Your task to perform on an android device: turn off location Image 0: 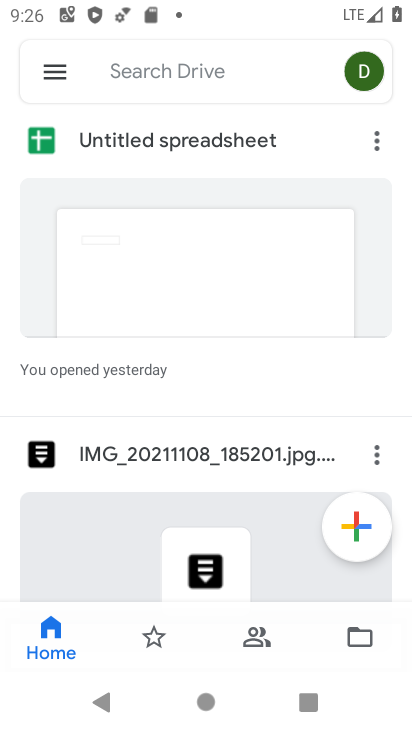
Step 0: press home button
Your task to perform on an android device: turn off location Image 1: 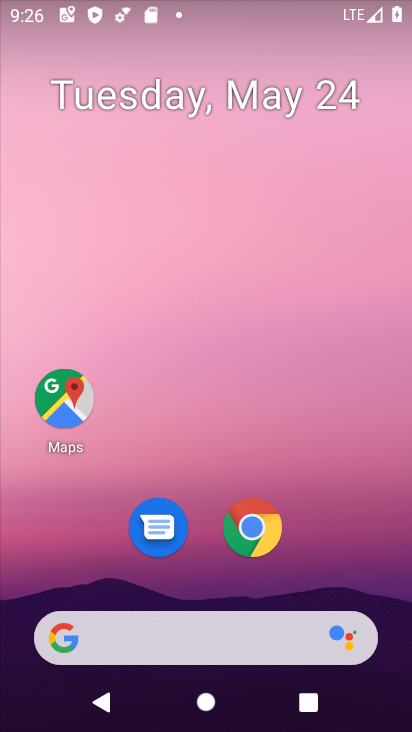
Step 1: drag from (198, 519) to (239, 82)
Your task to perform on an android device: turn off location Image 2: 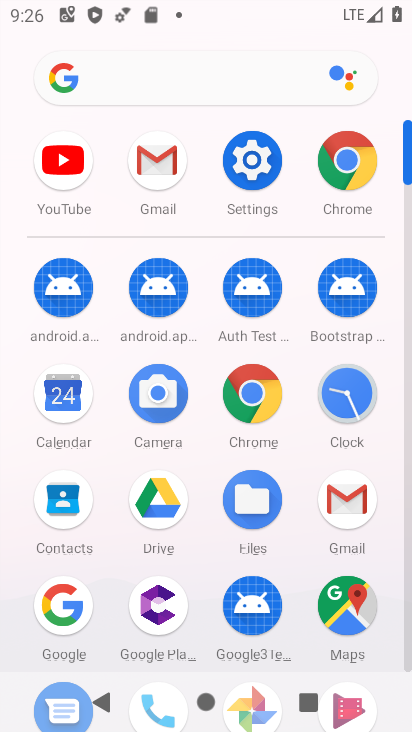
Step 2: click (245, 152)
Your task to perform on an android device: turn off location Image 3: 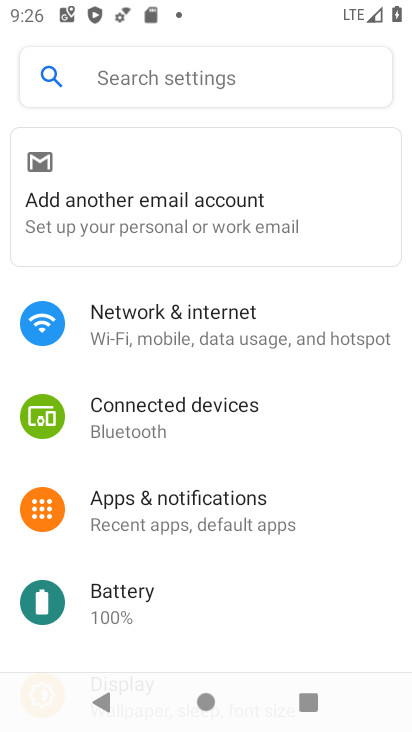
Step 3: drag from (187, 599) to (212, 115)
Your task to perform on an android device: turn off location Image 4: 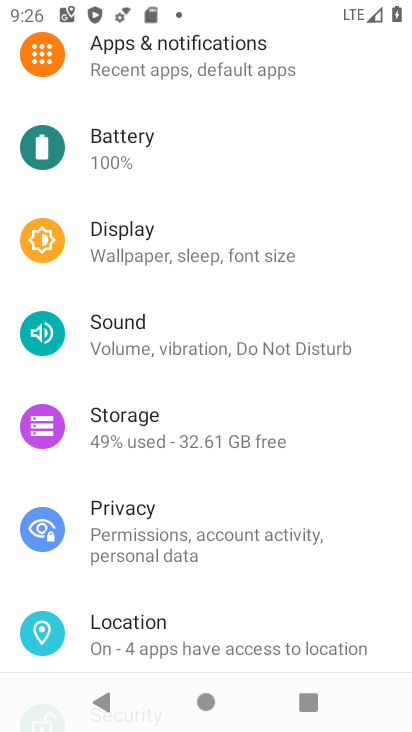
Step 4: click (152, 623)
Your task to perform on an android device: turn off location Image 5: 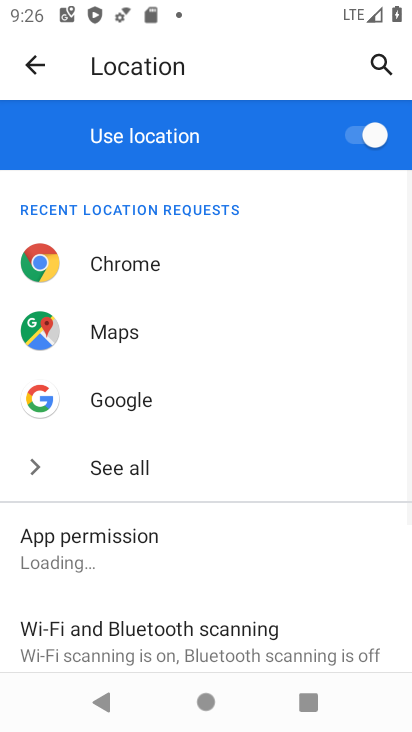
Step 5: click (348, 138)
Your task to perform on an android device: turn off location Image 6: 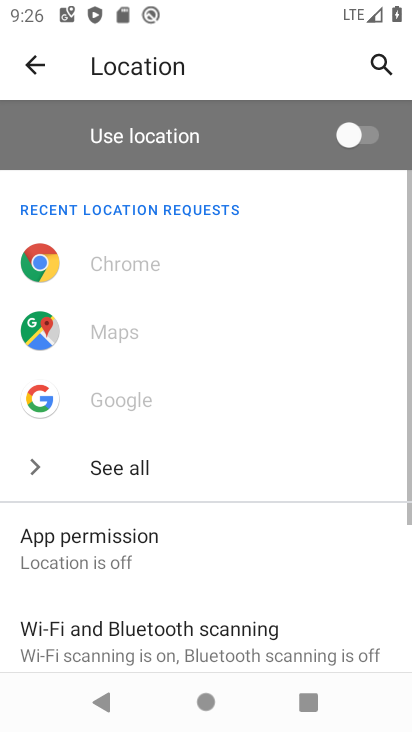
Step 6: task complete